Your task to perform on an android device: open app "Contacts" (install if not already installed) Image 0: 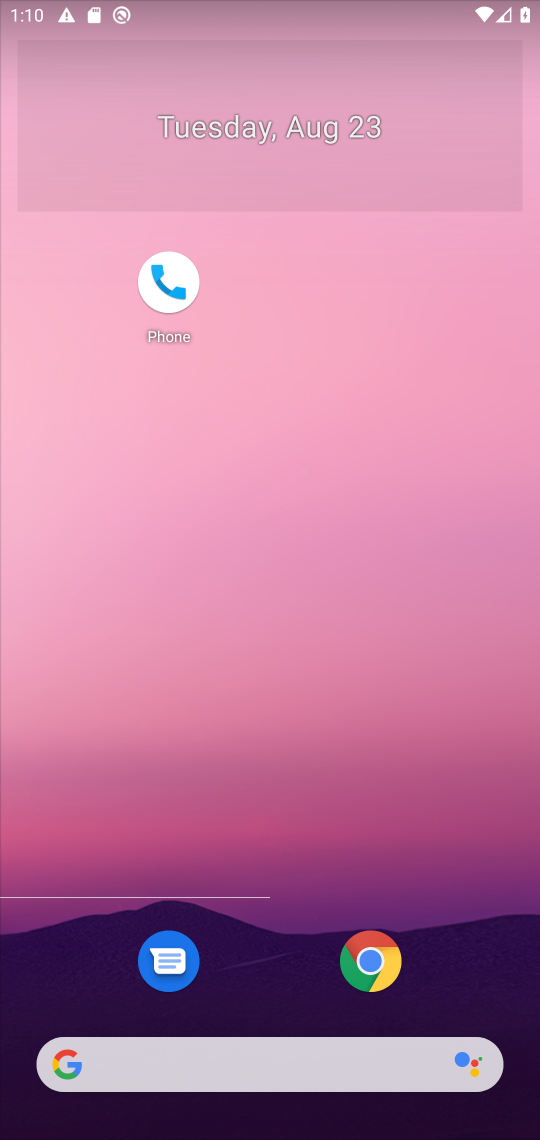
Step 0: drag from (288, 972) to (249, 99)
Your task to perform on an android device: open app "Contacts" (install if not already installed) Image 1: 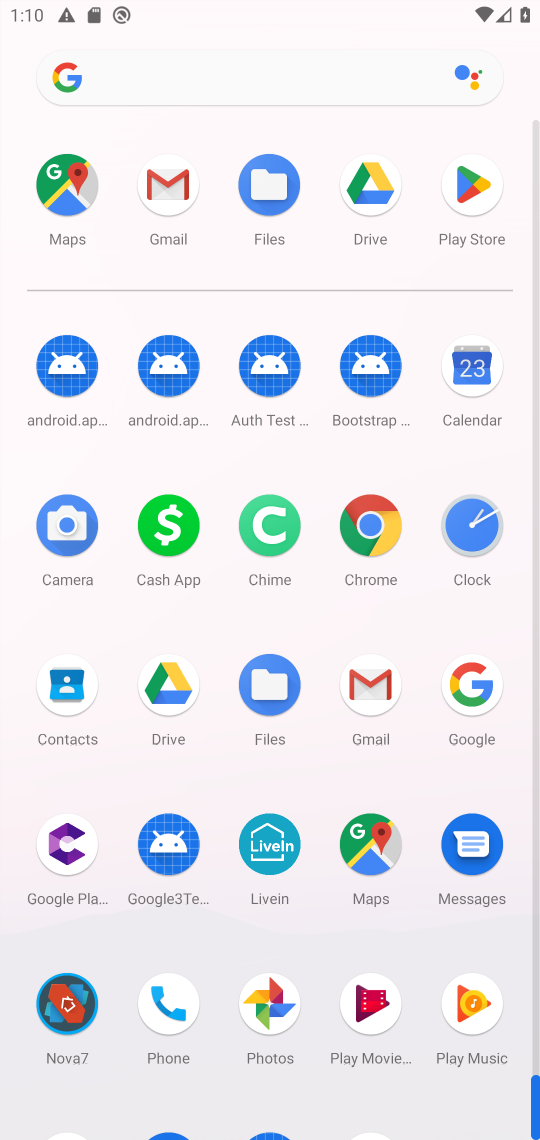
Step 1: click (88, 660)
Your task to perform on an android device: open app "Contacts" (install if not already installed) Image 2: 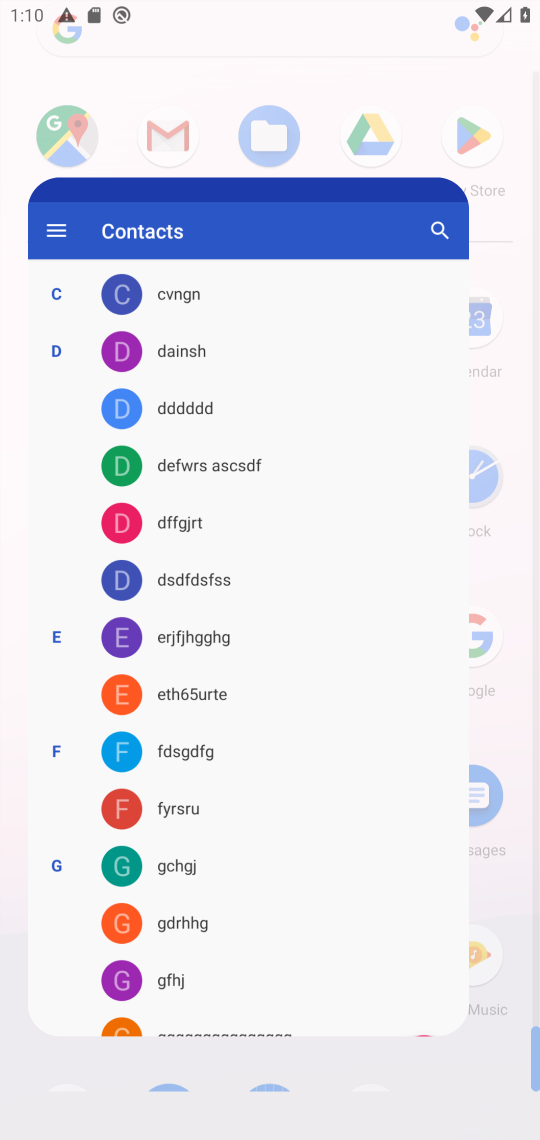
Step 2: task complete